Your task to perform on an android device: turn off picture-in-picture Image 0: 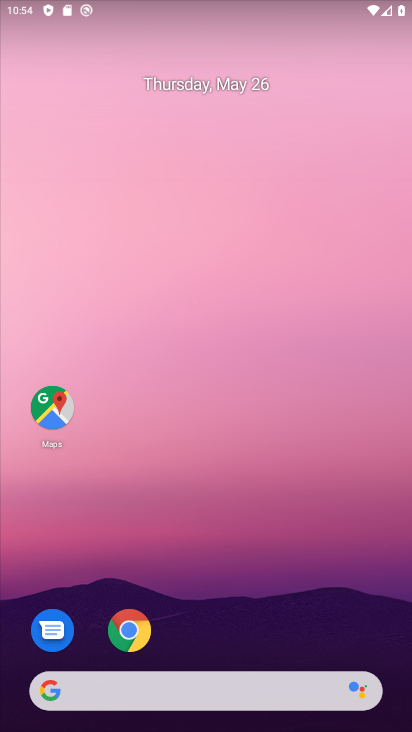
Step 0: click (127, 632)
Your task to perform on an android device: turn off picture-in-picture Image 1: 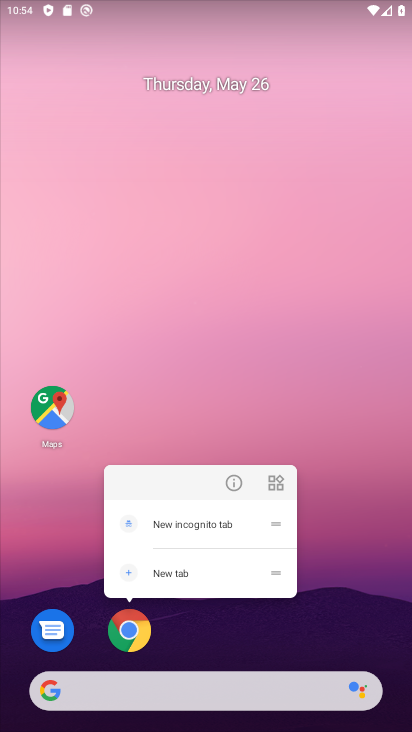
Step 1: click (231, 485)
Your task to perform on an android device: turn off picture-in-picture Image 2: 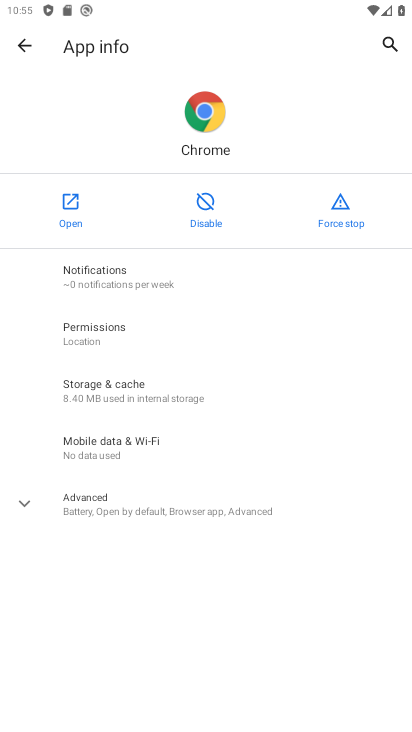
Step 2: click (94, 516)
Your task to perform on an android device: turn off picture-in-picture Image 3: 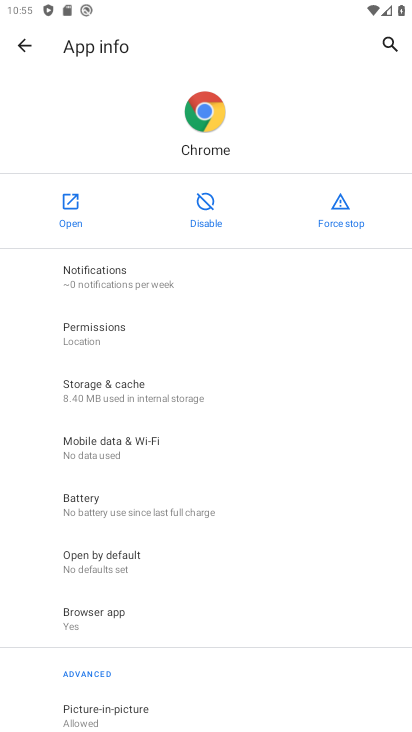
Step 3: drag from (136, 593) to (208, 472)
Your task to perform on an android device: turn off picture-in-picture Image 4: 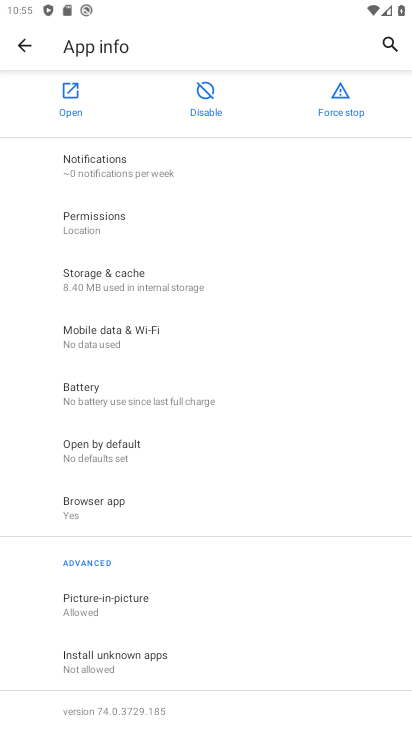
Step 4: click (120, 603)
Your task to perform on an android device: turn off picture-in-picture Image 5: 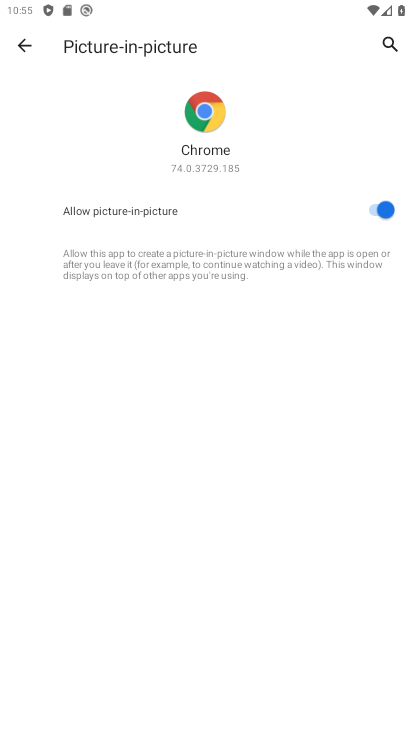
Step 5: click (379, 209)
Your task to perform on an android device: turn off picture-in-picture Image 6: 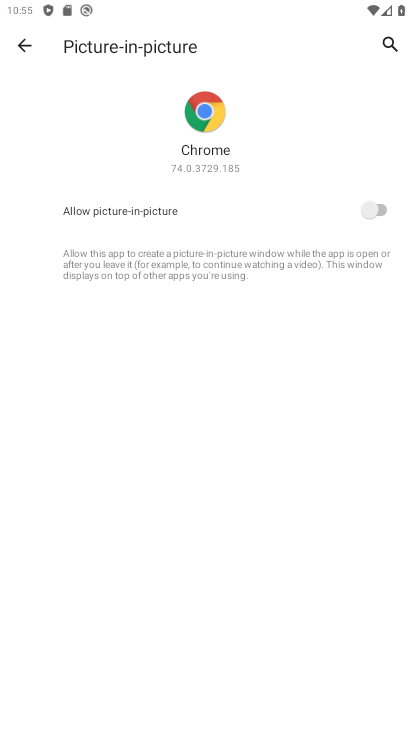
Step 6: task complete